Your task to perform on an android device: Go to Wikipedia Image 0: 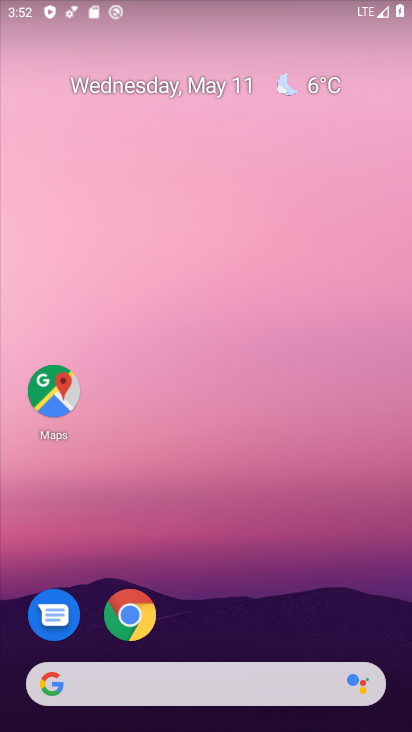
Step 0: click (136, 609)
Your task to perform on an android device: Go to Wikipedia Image 1: 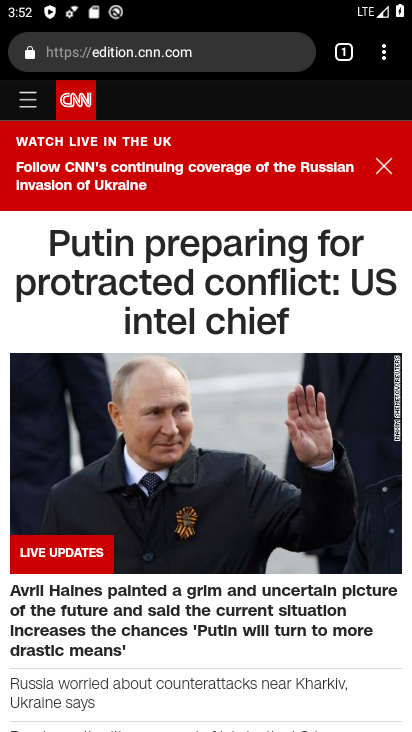
Step 1: click (337, 66)
Your task to perform on an android device: Go to Wikipedia Image 2: 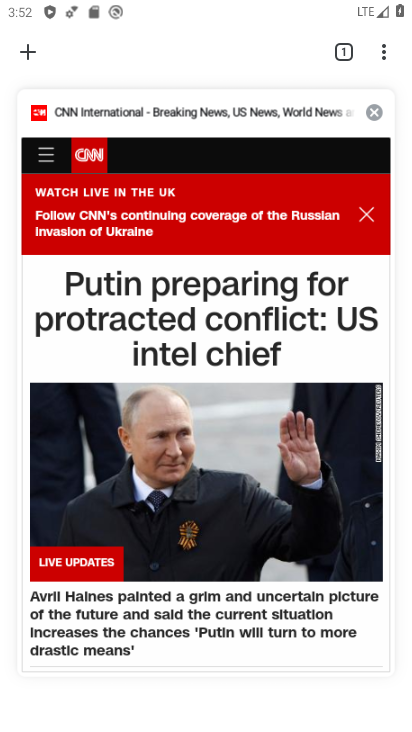
Step 2: click (378, 112)
Your task to perform on an android device: Go to Wikipedia Image 3: 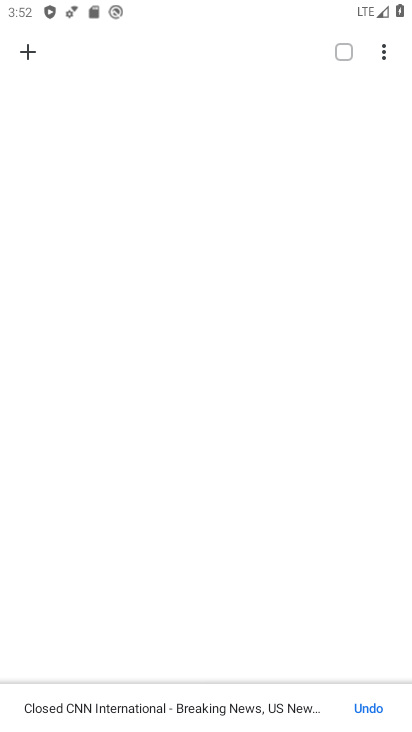
Step 3: click (30, 57)
Your task to perform on an android device: Go to Wikipedia Image 4: 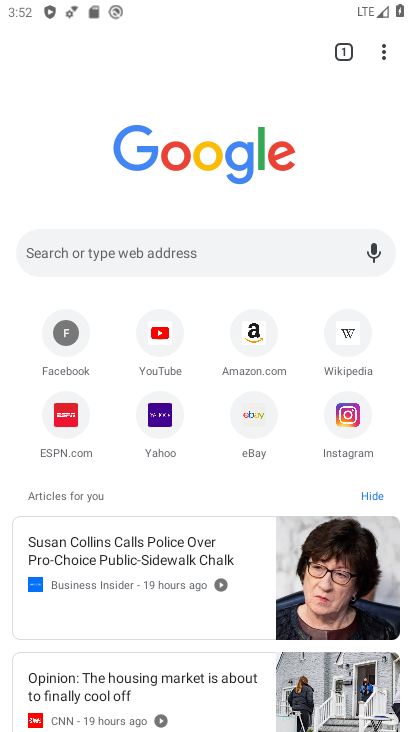
Step 4: click (335, 333)
Your task to perform on an android device: Go to Wikipedia Image 5: 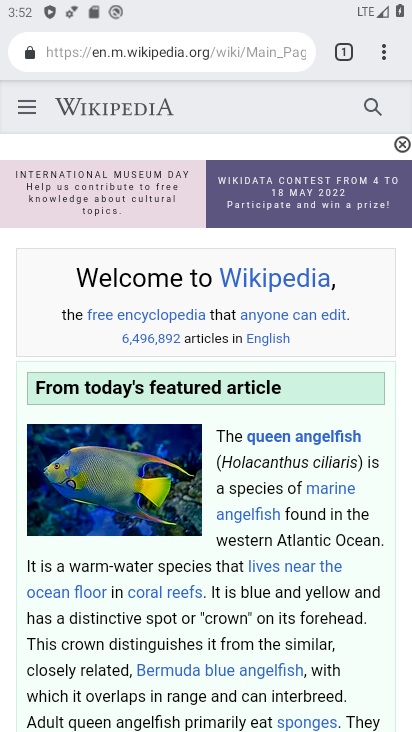
Step 5: task complete